Your task to perform on an android device: Do I have any events today? Image 0: 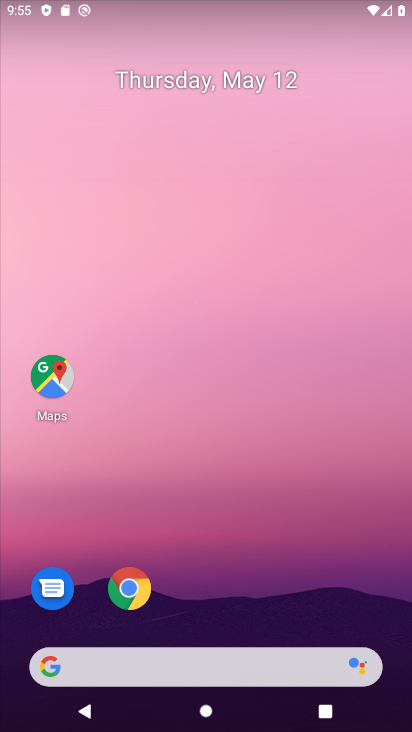
Step 0: drag from (237, 592) to (250, 159)
Your task to perform on an android device: Do I have any events today? Image 1: 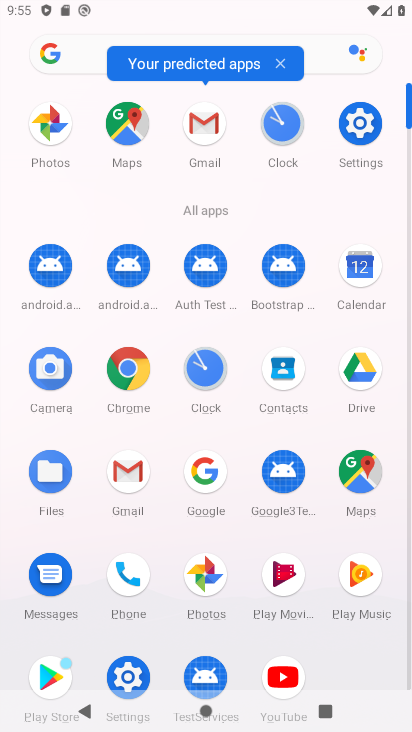
Step 1: click (362, 277)
Your task to perform on an android device: Do I have any events today? Image 2: 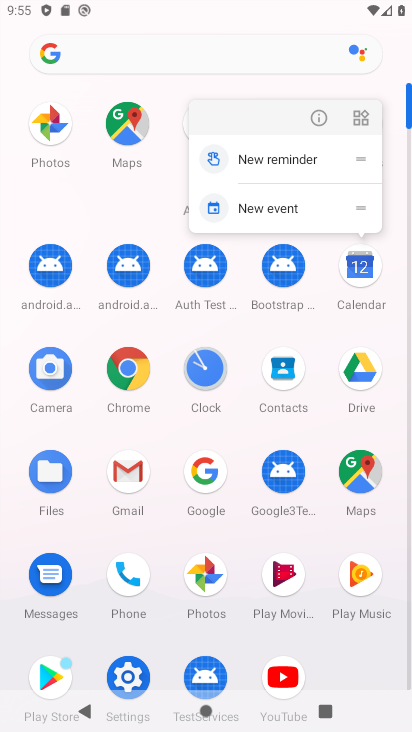
Step 2: click (353, 278)
Your task to perform on an android device: Do I have any events today? Image 3: 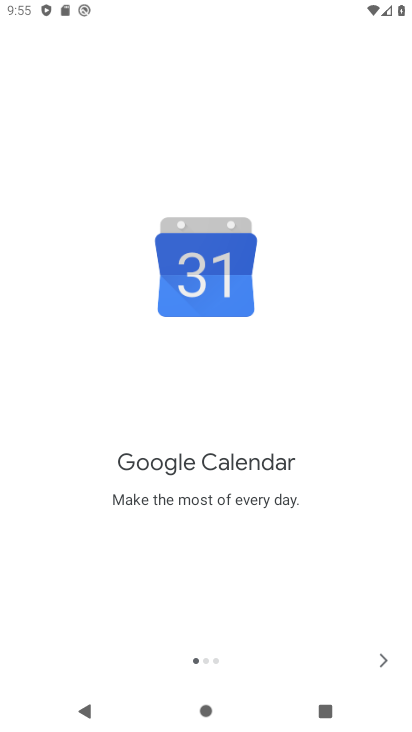
Step 3: click (359, 655)
Your task to perform on an android device: Do I have any events today? Image 4: 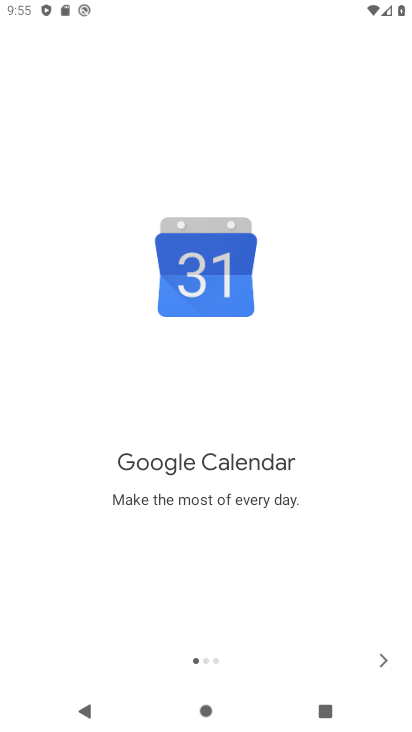
Step 4: click (380, 663)
Your task to perform on an android device: Do I have any events today? Image 5: 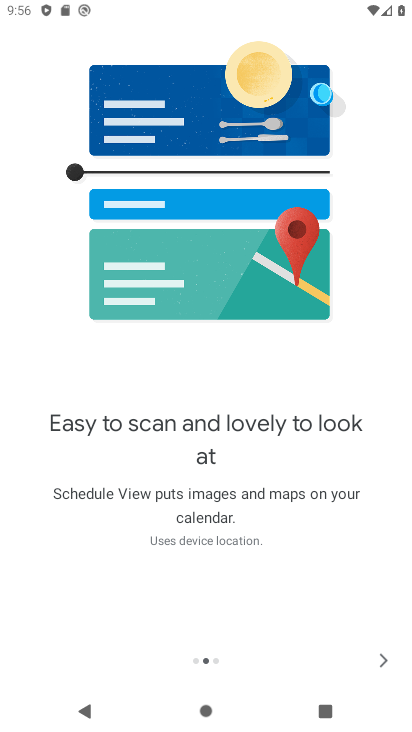
Step 5: click (386, 651)
Your task to perform on an android device: Do I have any events today? Image 6: 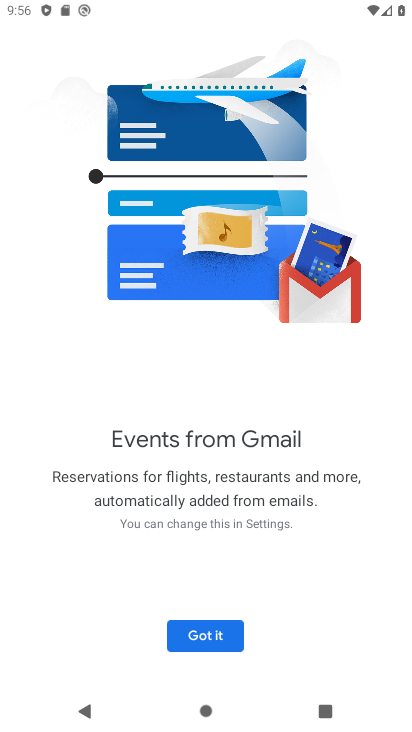
Step 6: click (211, 645)
Your task to perform on an android device: Do I have any events today? Image 7: 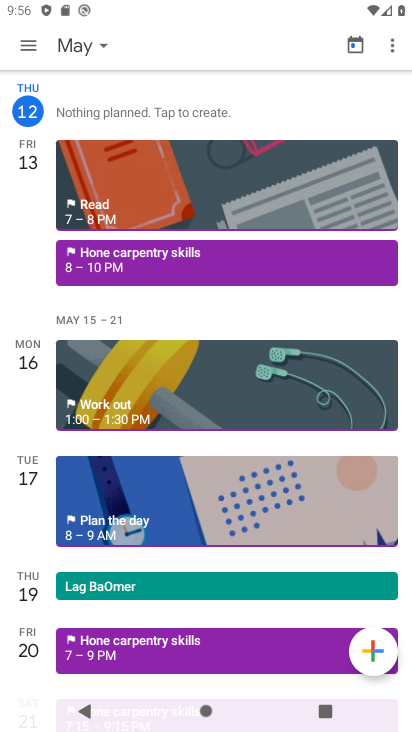
Step 7: click (103, 42)
Your task to perform on an android device: Do I have any events today? Image 8: 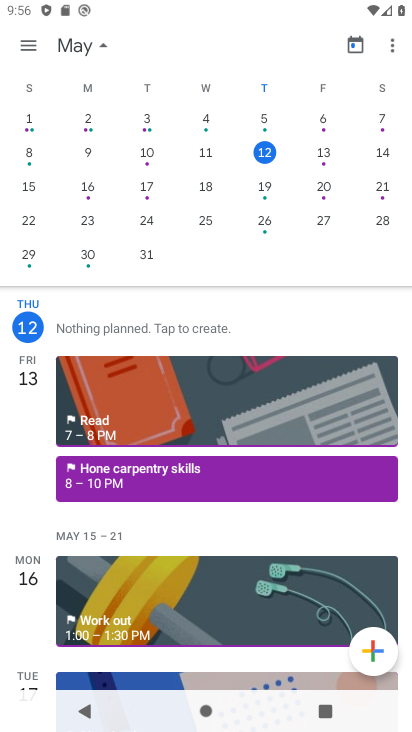
Step 8: click (264, 162)
Your task to perform on an android device: Do I have any events today? Image 9: 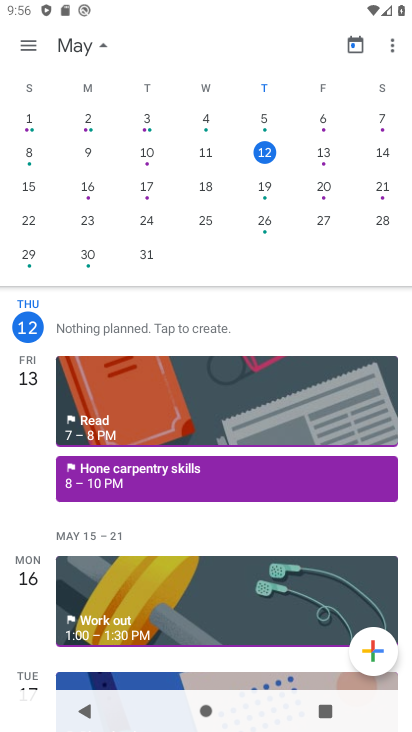
Step 9: task complete